Your task to perform on an android device: Open privacy settings Image 0: 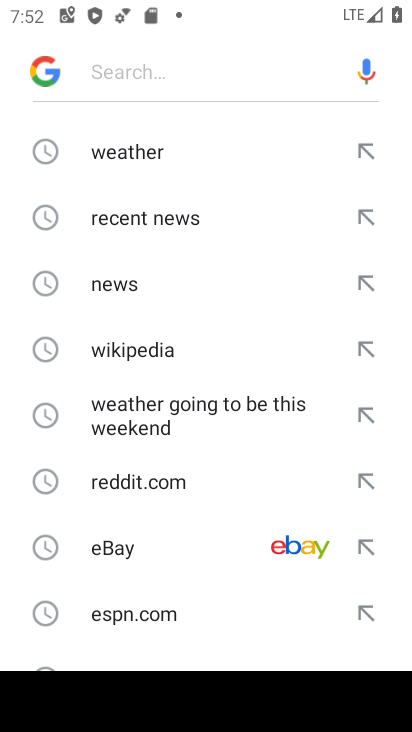
Step 0: press home button
Your task to perform on an android device: Open privacy settings Image 1: 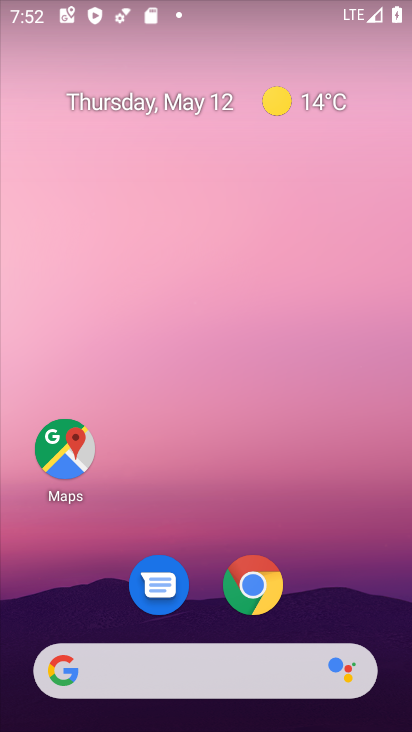
Step 1: drag from (201, 524) to (144, 67)
Your task to perform on an android device: Open privacy settings Image 2: 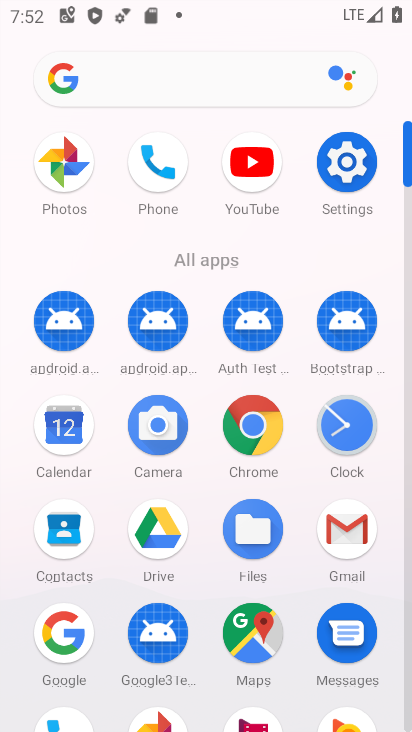
Step 2: click (341, 164)
Your task to perform on an android device: Open privacy settings Image 3: 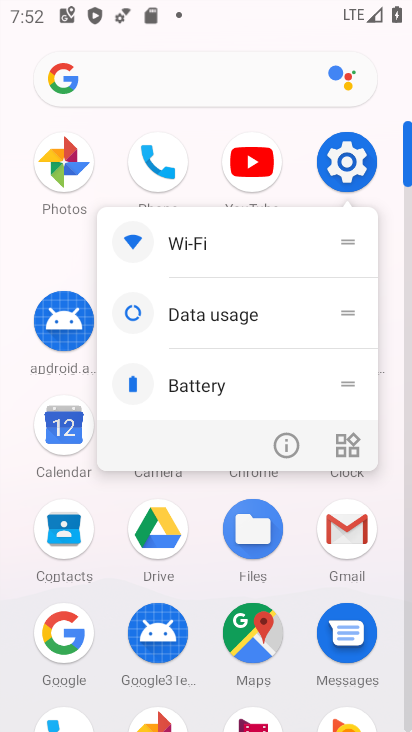
Step 3: click (349, 162)
Your task to perform on an android device: Open privacy settings Image 4: 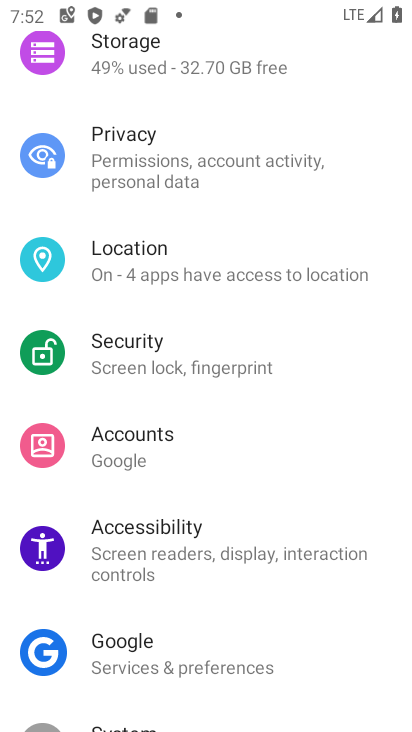
Step 4: click (212, 166)
Your task to perform on an android device: Open privacy settings Image 5: 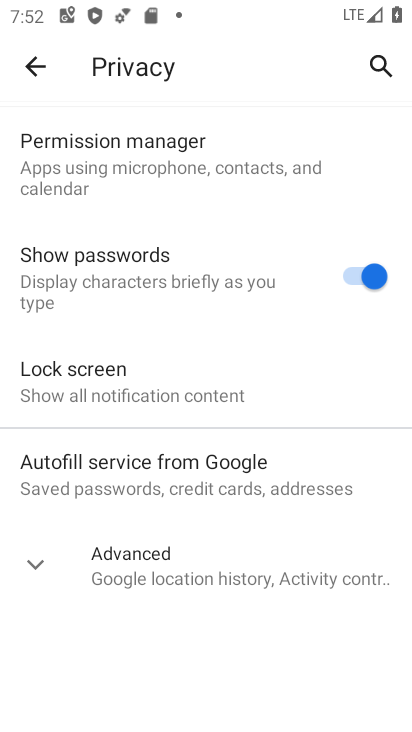
Step 5: task complete